Your task to perform on an android device: turn on data saver in the chrome app Image 0: 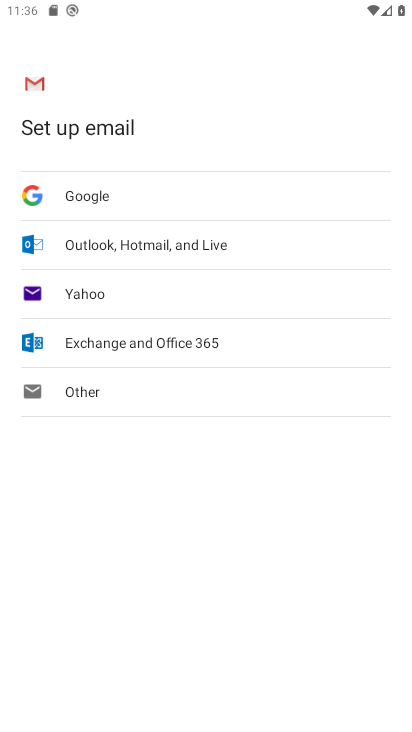
Step 0: press home button
Your task to perform on an android device: turn on data saver in the chrome app Image 1: 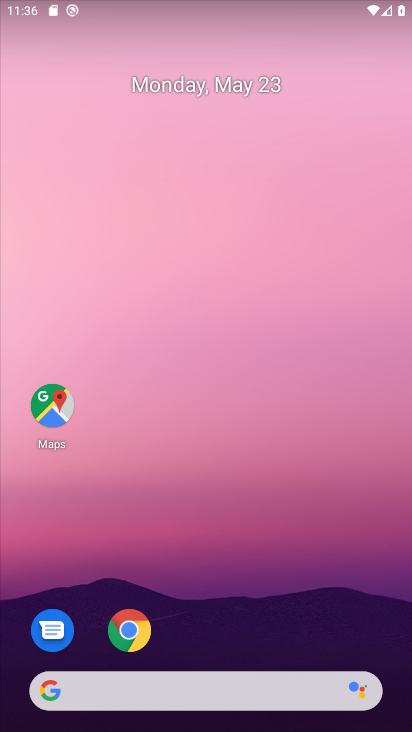
Step 1: click (138, 636)
Your task to perform on an android device: turn on data saver in the chrome app Image 2: 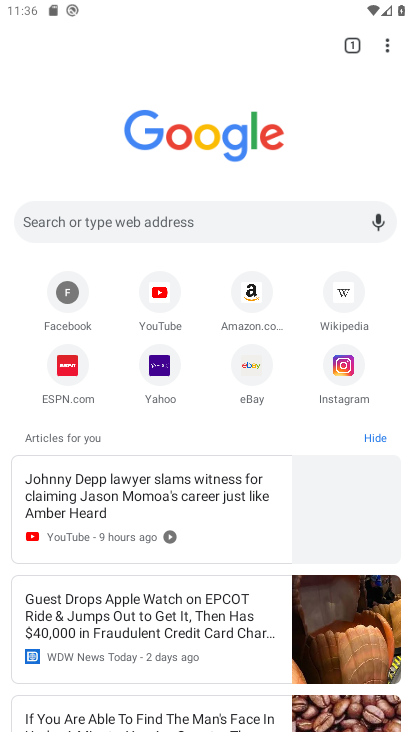
Step 2: click (390, 44)
Your task to perform on an android device: turn on data saver in the chrome app Image 3: 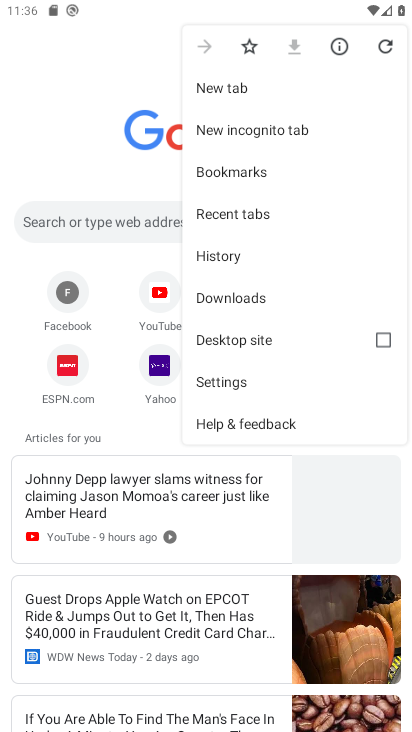
Step 3: click (225, 378)
Your task to perform on an android device: turn on data saver in the chrome app Image 4: 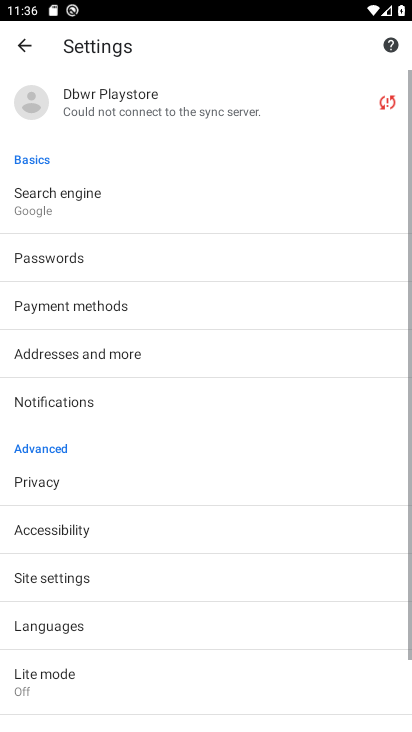
Step 4: drag from (119, 604) to (136, 411)
Your task to perform on an android device: turn on data saver in the chrome app Image 5: 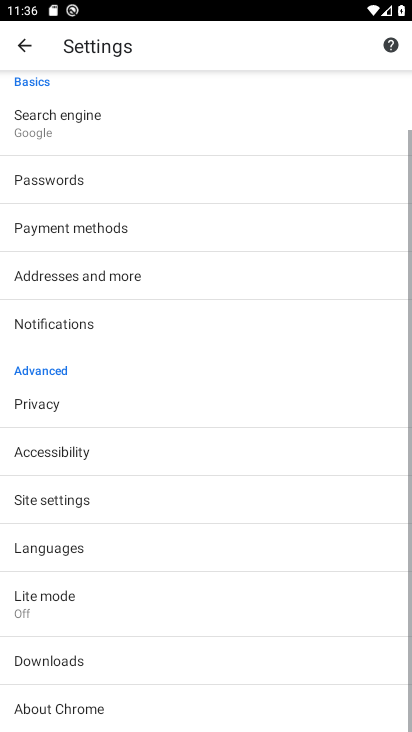
Step 5: click (76, 608)
Your task to perform on an android device: turn on data saver in the chrome app Image 6: 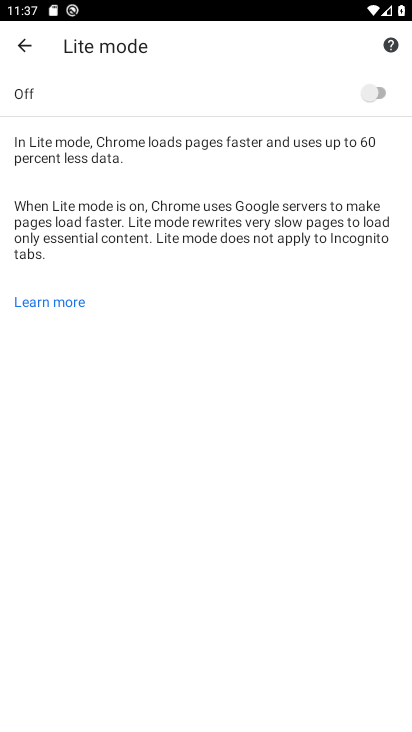
Step 6: click (374, 93)
Your task to perform on an android device: turn on data saver in the chrome app Image 7: 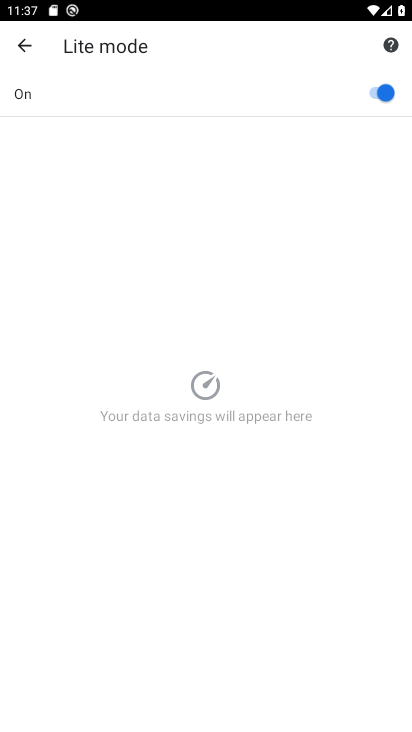
Step 7: task complete